Your task to perform on an android device: toggle notifications settings in the gmail app Image 0: 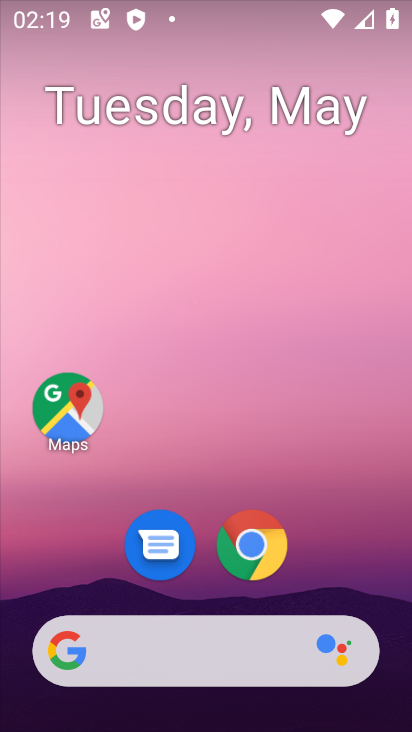
Step 0: drag from (397, 636) to (358, 213)
Your task to perform on an android device: toggle notifications settings in the gmail app Image 1: 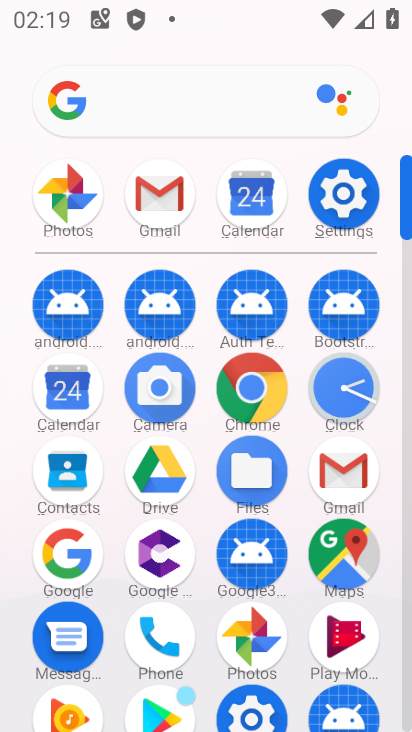
Step 1: click (343, 472)
Your task to perform on an android device: toggle notifications settings in the gmail app Image 2: 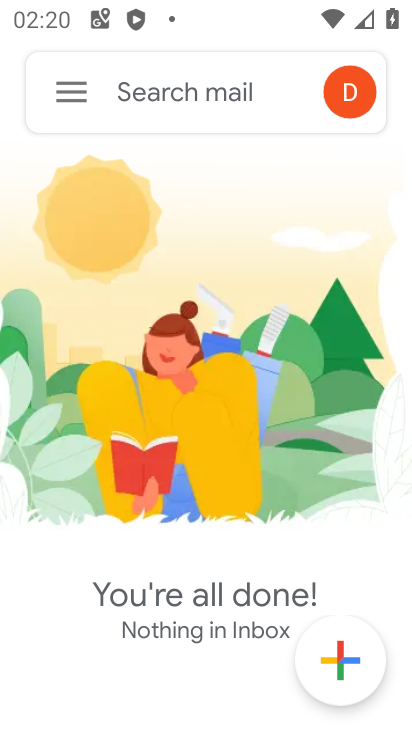
Step 2: click (70, 91)
Your task to perform on an android device: toggle notifications settings in the gmail app Image 3: 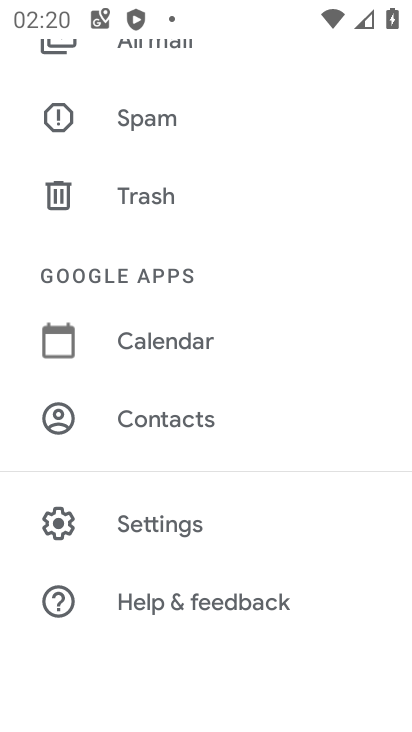
Step 3: click (151, 530)
Your task to perform on an android device: toggle notifications settings in the gmail app Image 4: 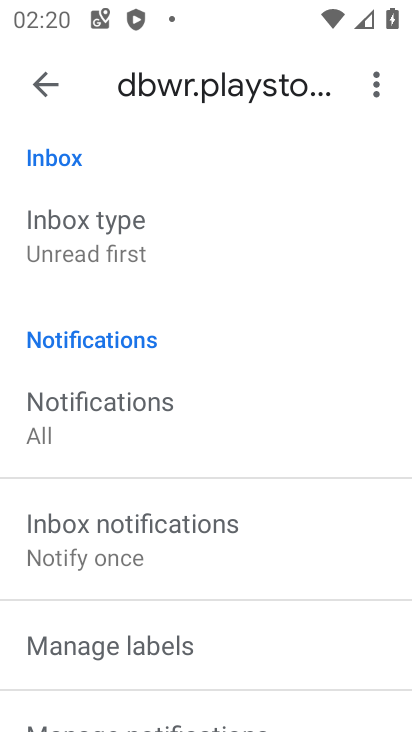
Step 4: drag from (319, 609) to (222, 50)
Your task to perform on an android device: toggle notifications settings in the gmail app Image 5: 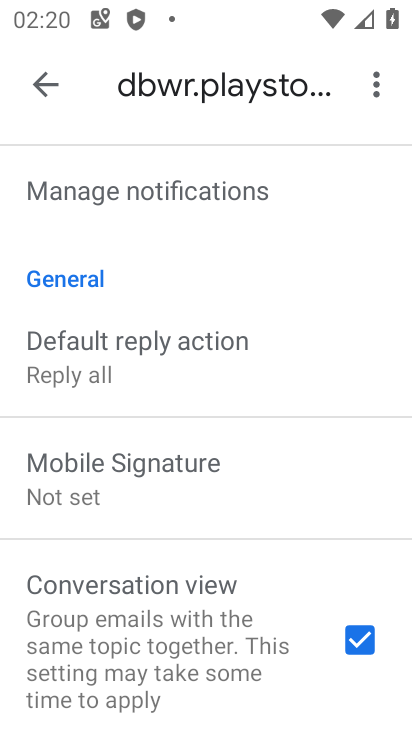
Step 5: drag from (261, 610) to (306, 203)
Your task to perform on an android device: toggle notifications settings in the gmail app Image 6: 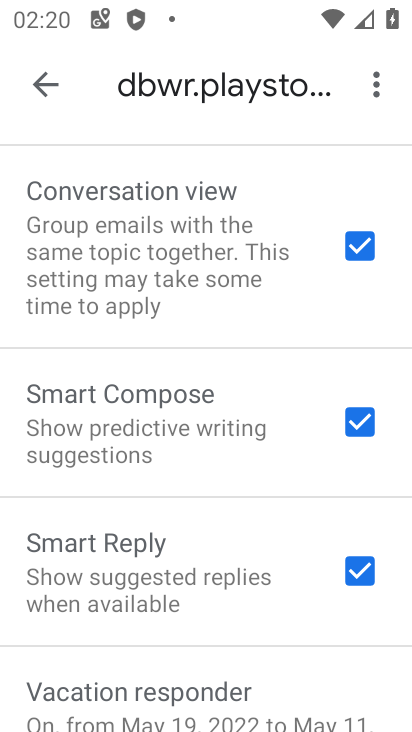
Step 6: drag from (272, 180) to (238, 652)
Your task to perform on an android device: toggle notifications settings in the gmail app Image 7: 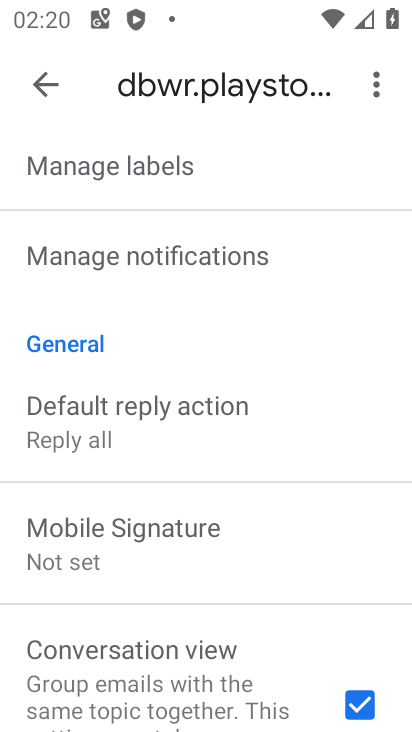
Step 7: click (110, 250)
Your task to perform on an android device: toggle notifications settings in the gmail app Image 8: 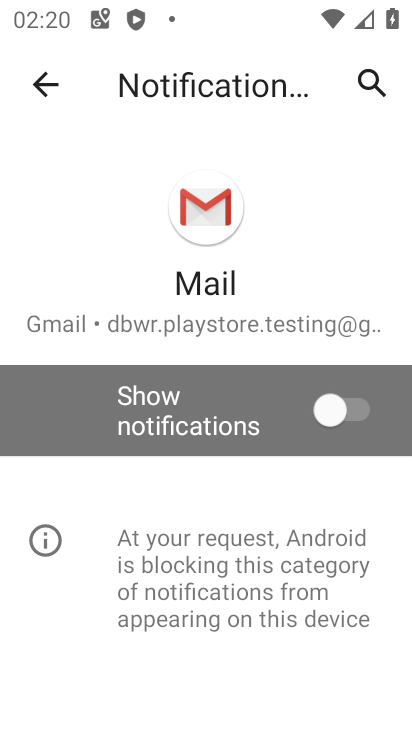
Step 8: click (363, 421)
Your task to perform on an android device: toggle notifications settings in the gmail app Image 9: 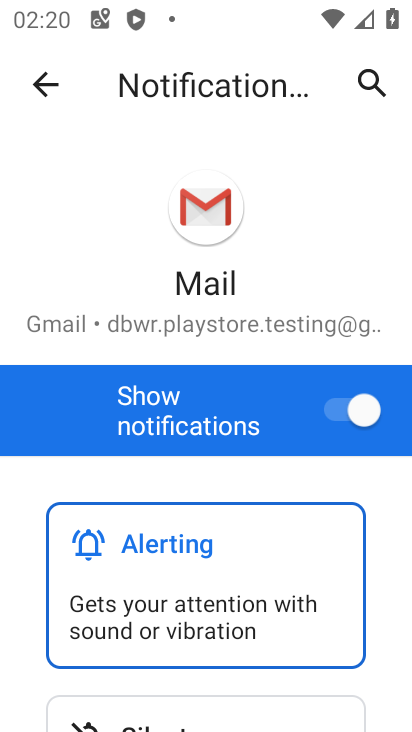
Step 9: task complete